Your task to perform on an android device: change timer sound Image 0: 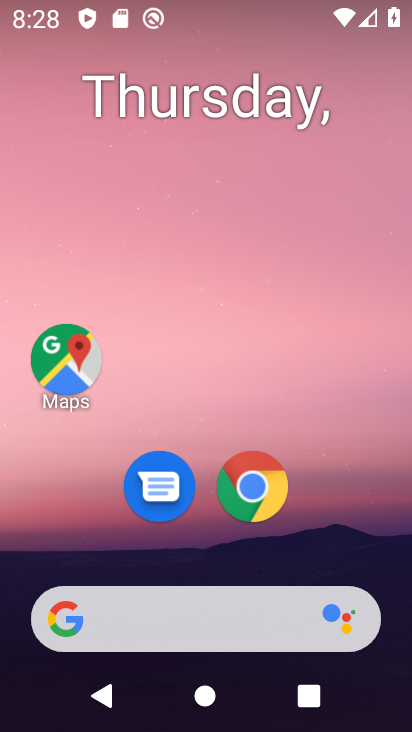
Step 0: drag from (47, 561) to (191, 21)
Your task to perform on an android device: change timer sound Image 1: 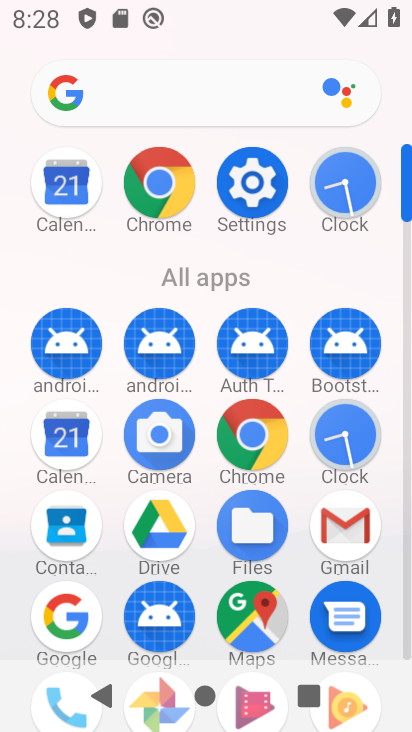
Step 1: click (363, 187)
Your task to perform on an android device: change timer sound Image 2: 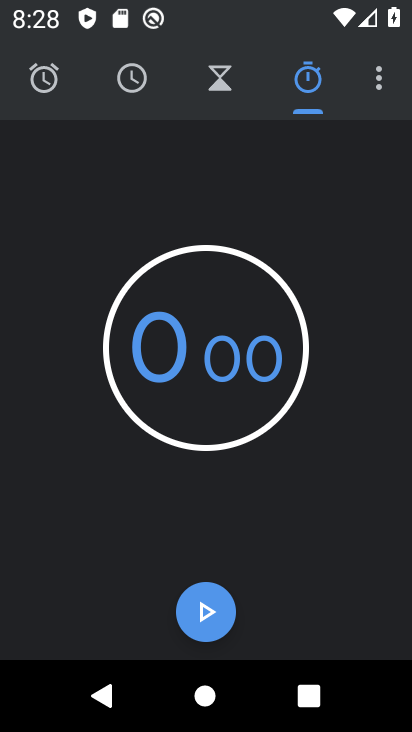
Step 2: drag from (380, 80) to (335, 322)
Your task to perform on an android device: change timer sound Image 3: 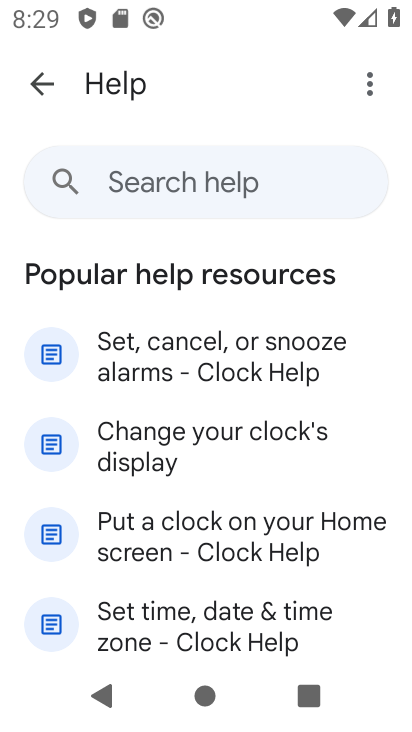
Step 3: press back button
Your task to perform on an android device: change timer sound Image 4: 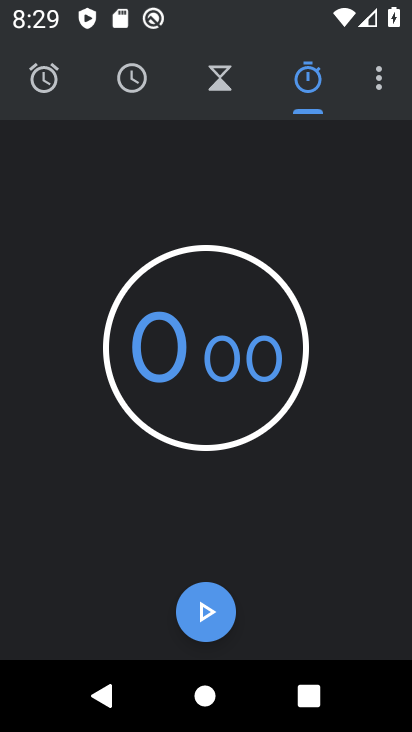
Step 4: click (376, 74)
Your task to perform on an android device: change timer sound Image 5: 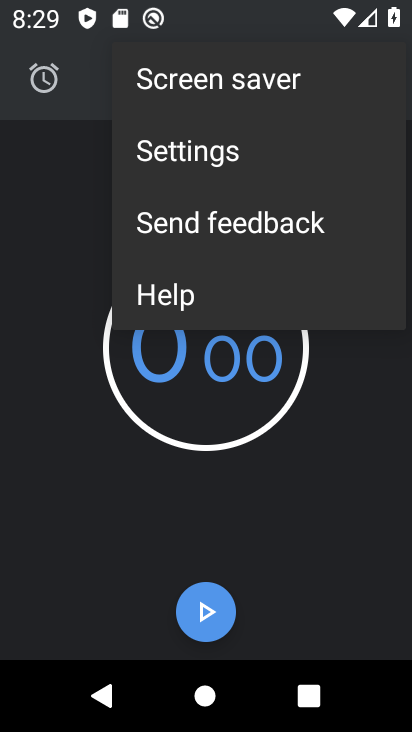
Step 5: click (214, 149)
Your task to perform on an android device: change timer sound Image 6: 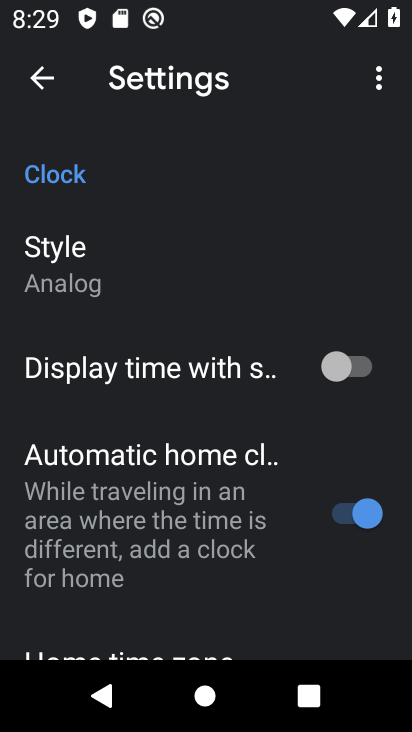
Step 6: drag from (201, 599) to (251, 111)
Your task to perform on an android device: change timer sound Image 7: 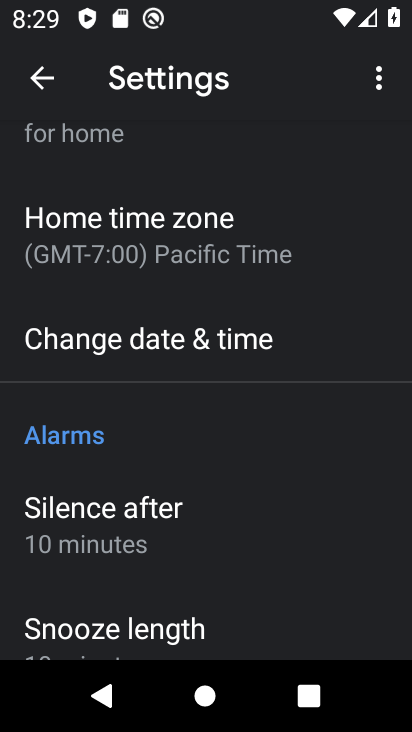
Step 7: drag from (153, 608) to (237, 185)
Your task to perform on an android device: change timer sound Image 8: 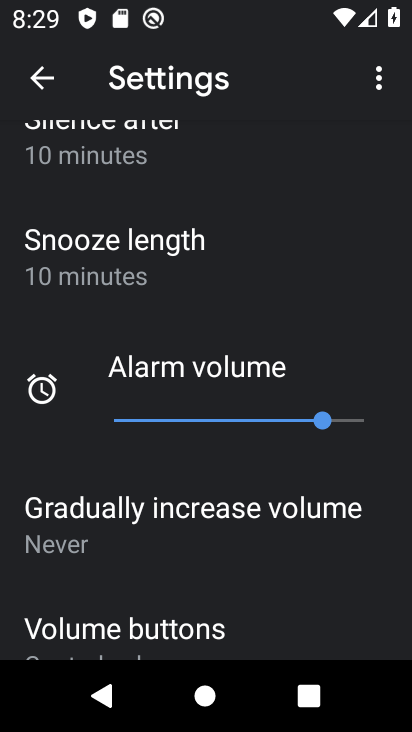
Step 8: drag from (165, 561) to (211, 156)
Your task to perform on an android device: change timer sound Image 9: 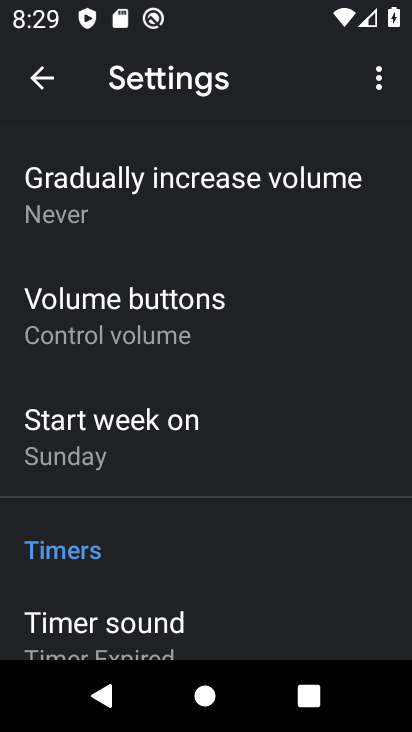
Step 9: click (105, 632)
Your task to perform on an android device: change timer sound Image 10: 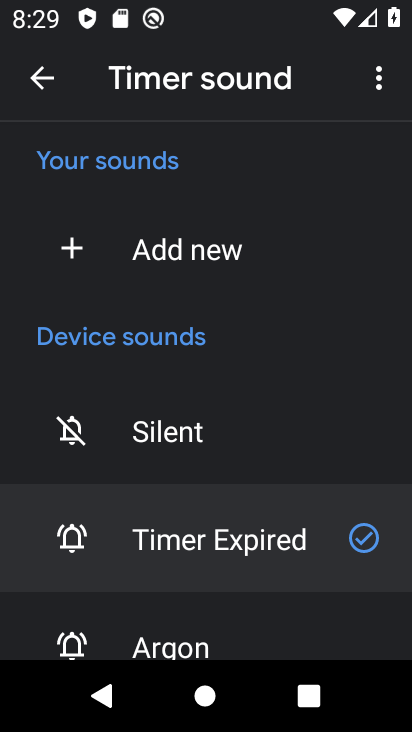
Step 10: click (179, 640)
Your task to perform on an android device: change timer sound Image 11: 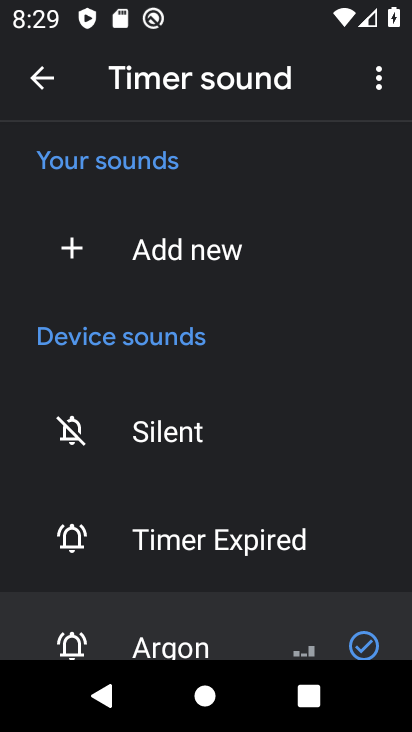
Step 11: task complete